Your task to perform on an android device: find snoozed emails in the gmail app Image 0: 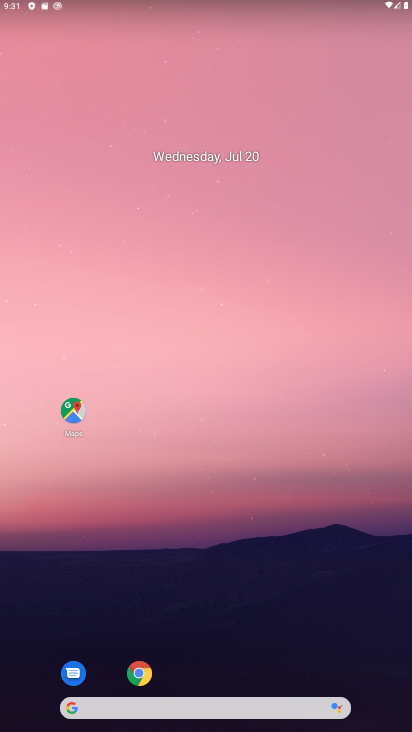
Step 0: drag from (183, 708) to (188, 246)
Your task to perform on an android device: find snoozed emails in the gmail app Image 1: 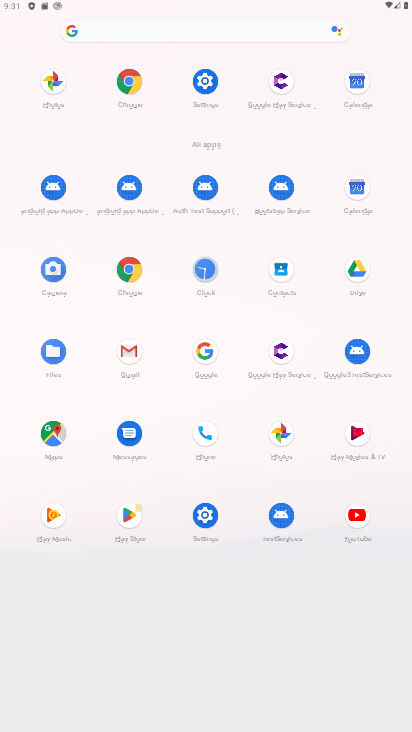
Step 1: click (129, 350)
Your task to perform on an android device: find snoozed emails in the gmail app Image 2: 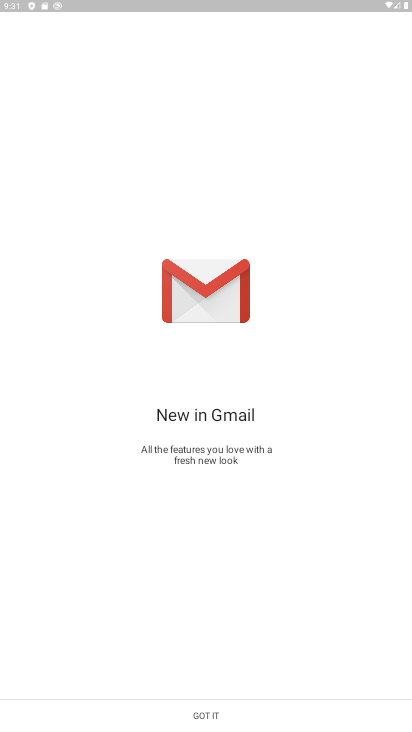
Step 2: click (207, 717)
Your task to perform on an android device: find snoozed emails in the gmail app Image 3: 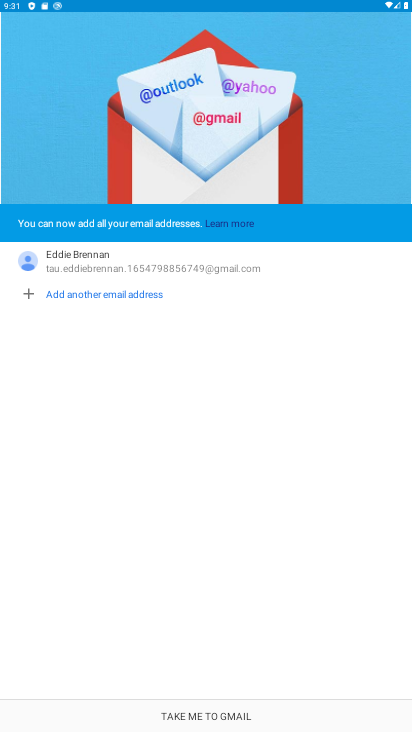
Step 3: click (203, 715)
Your task to perform on an android device: find snoozed emails in the gmail app Image 4: 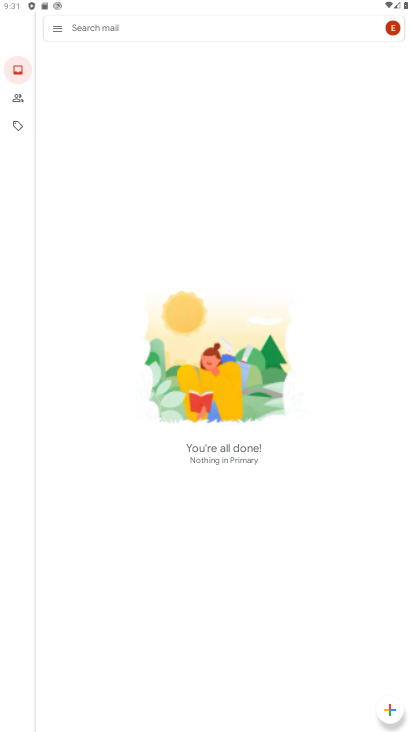
Step 4: click (57, 30)
Your task to perform on an android device: find snoozed emails in the gmail app Image 5: 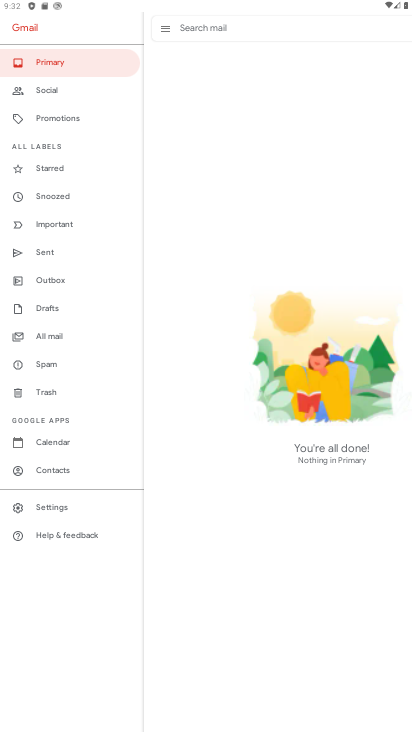
Step 5: click (51, 196)
Your task to perform on an android device: find snoozed emails in the gmail app Image 6: 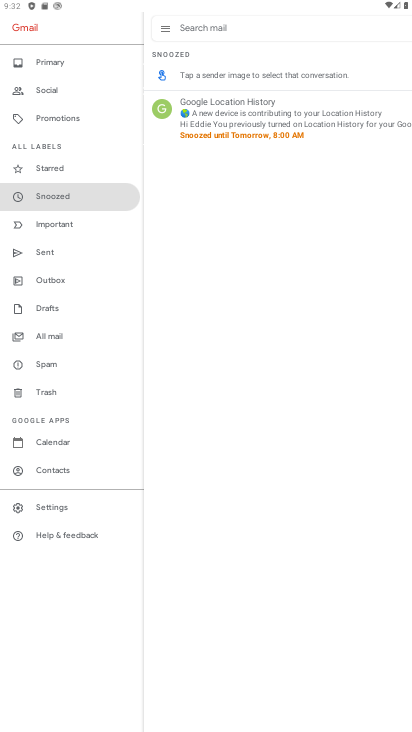
Step 6: click (240, 103)
Your task to perform on an android device: find snoozed emails in the gmail app Image 7: 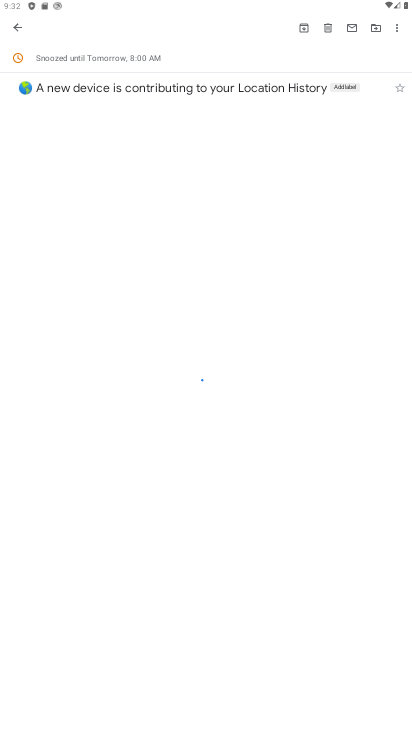
Step 7: task complete